Your task to perform on an android device: make emails show in primary in the gmail app Image 0: 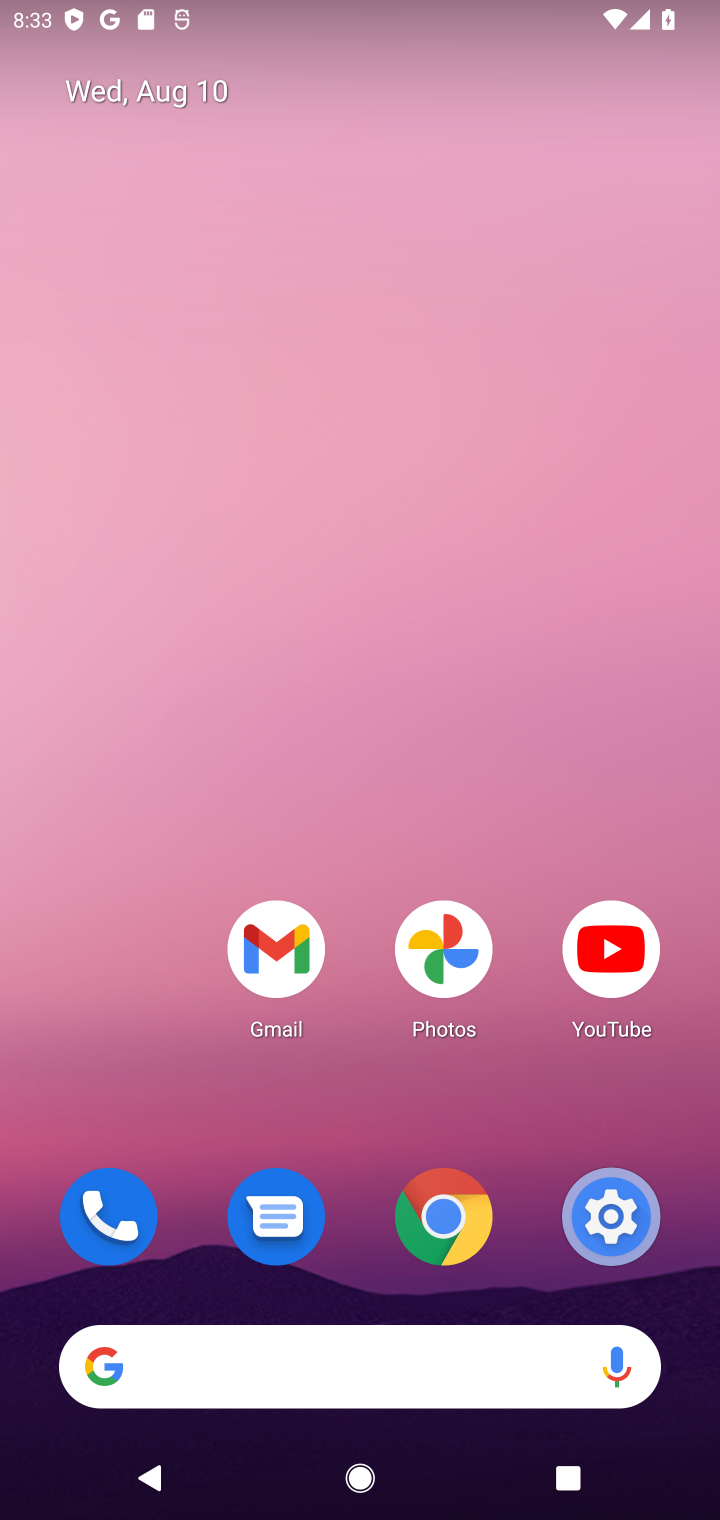
Step 0: press home button
Your task to perform on an android device: make emails show in primary in the gmail app Image 1: 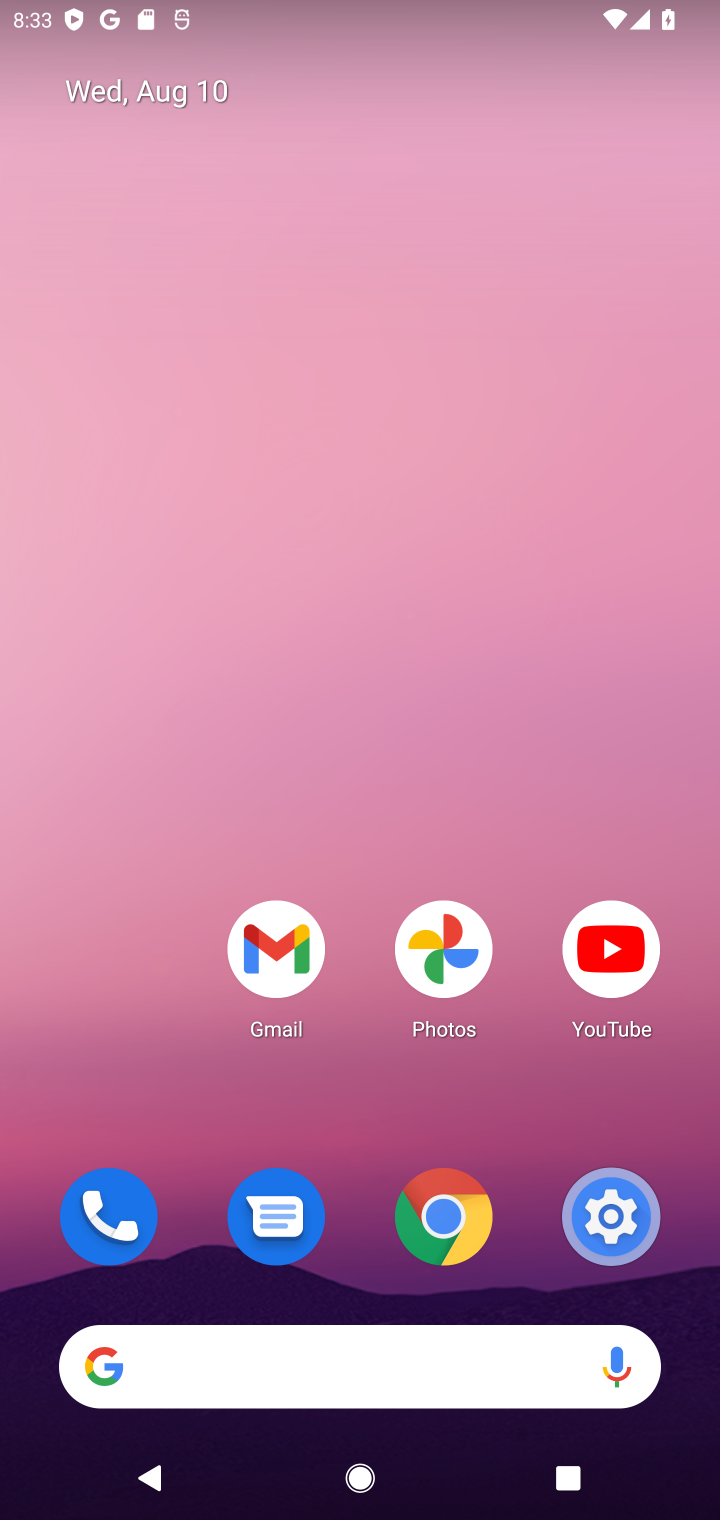
Step 1: drag from (228, 453) to (333, 145)
Your task to perform on an android device: make emails show in primary in the gmail app Image 2: 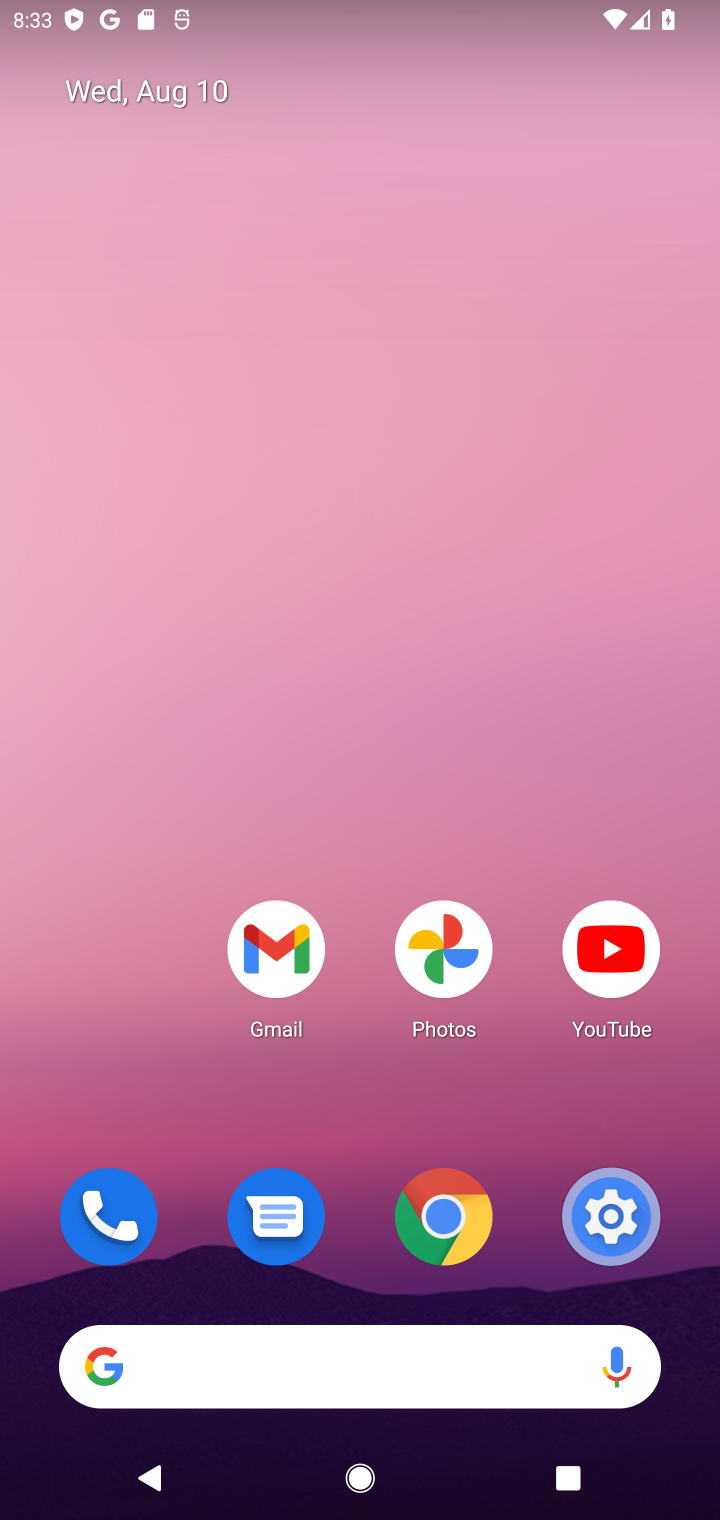
Step 2: drag from (109, 653) to (373, 4)
Your task to perform on an android device: make emails show in primary in the gmail app Image 3: 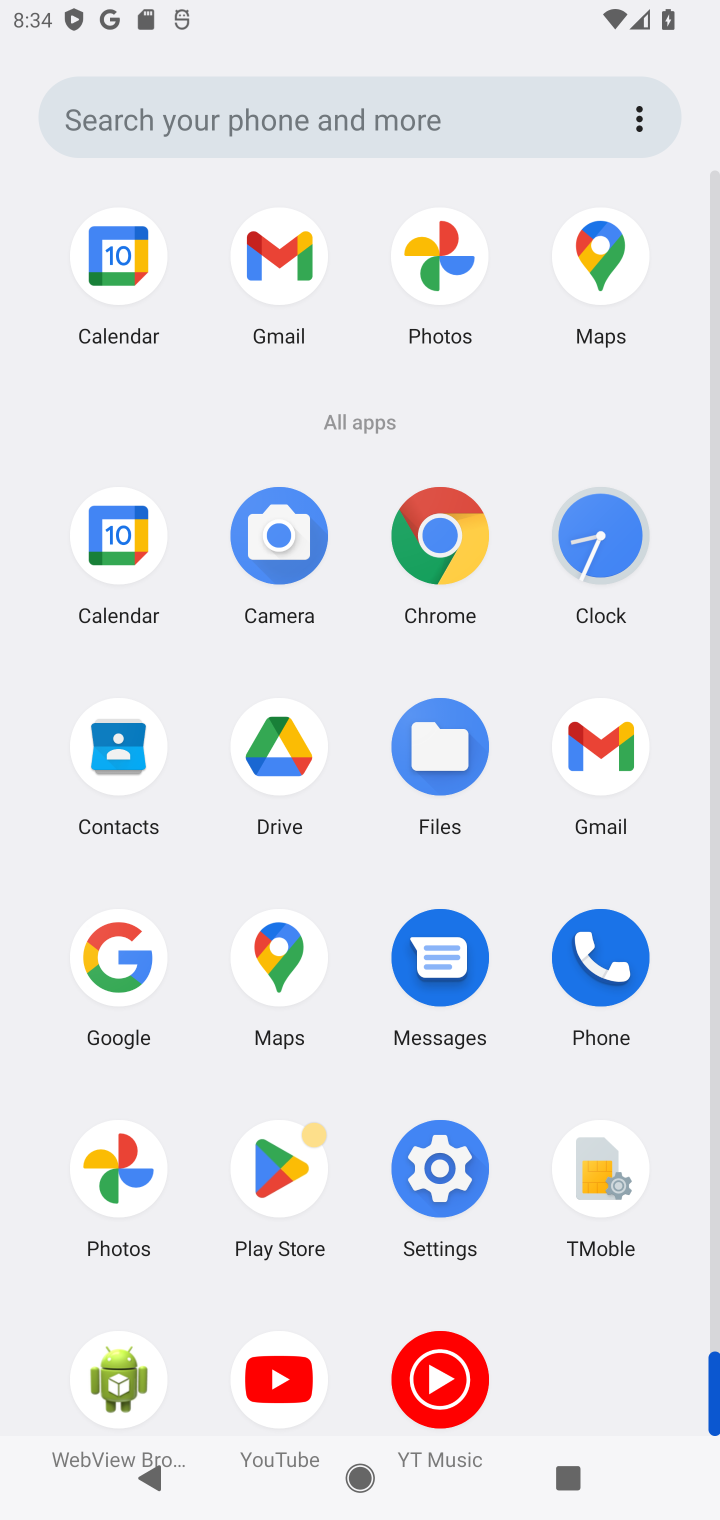
Step 3: click (611, 721)
Your task to perform on an android device: make emails show in primary in the gmail app Image 4: 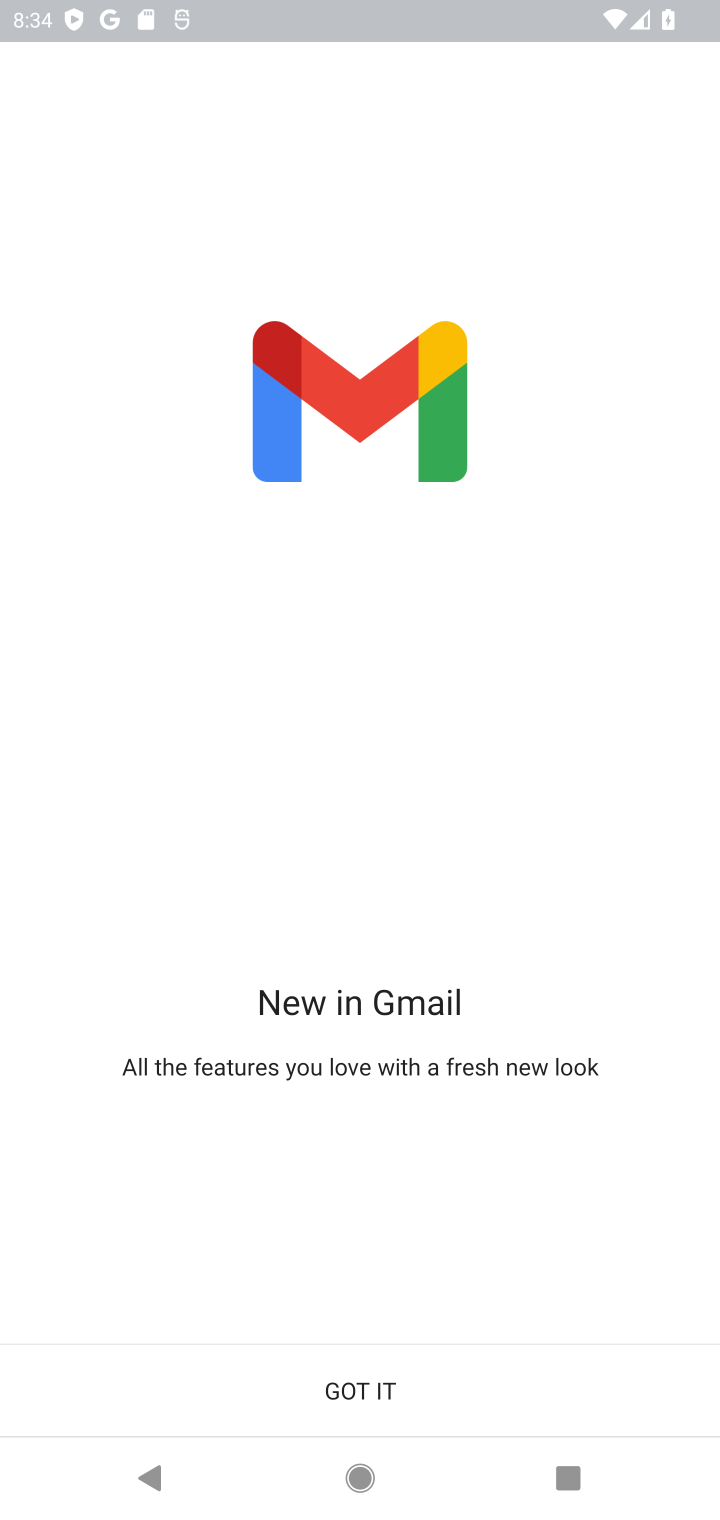
Step 4: click (458, 1362)
Your task to perform on an android device: make emails show in primary in the gmail app Image 5: 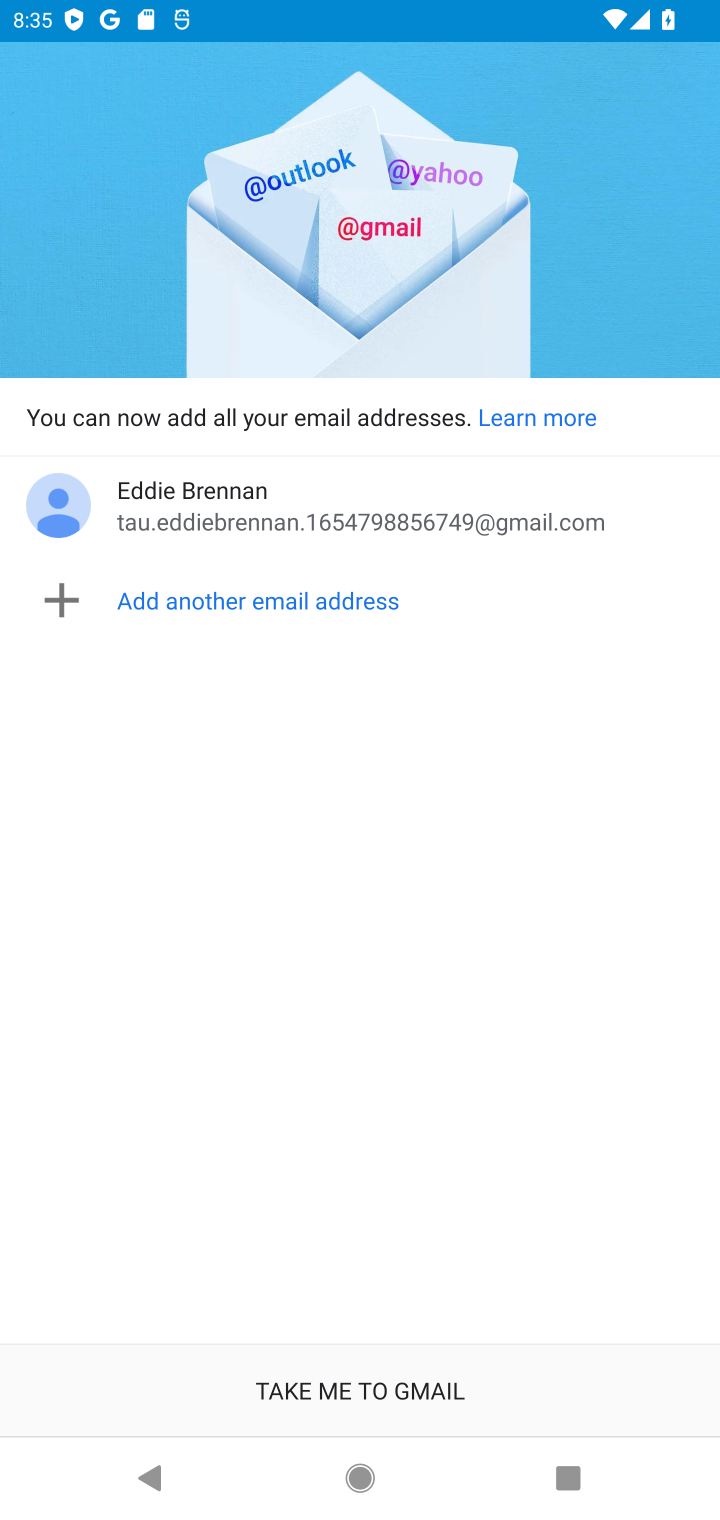
Step 5: task complete